Your task to perform on an android device: Open the calendar app, open the side menu, and click the "Day" option Image 0: 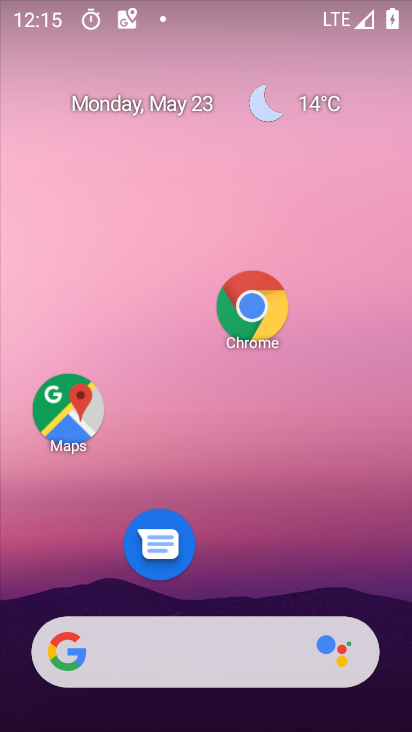
Step 0: drag from (248, 571) to (221, 207)
Your task to perform on an android device: Open the calendar app, open the side menu, and click the "Day" option Image 1: 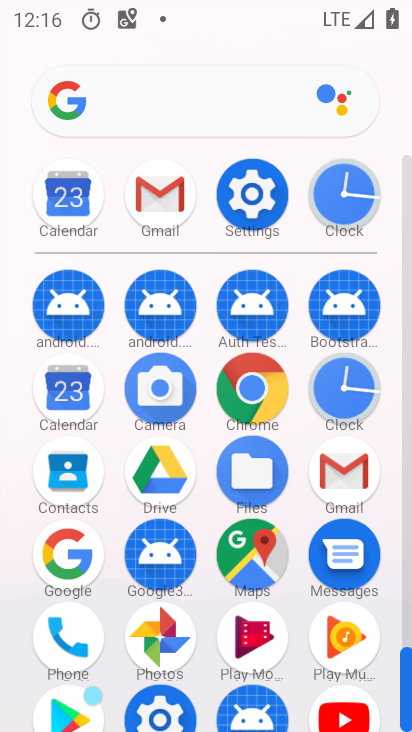
Step 1: click (91, 391)
Your task to perform on an android device: Open the calendar app, open the side menu, and click the "Day" option Image 2: 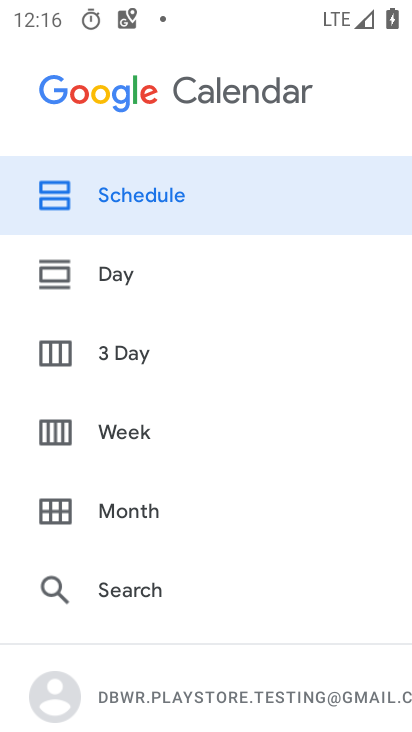
Step 2: click (103, 276)
Your task to perform on an android device: Open the calendar app, open the side menu, and click the "Day" option Image 3: 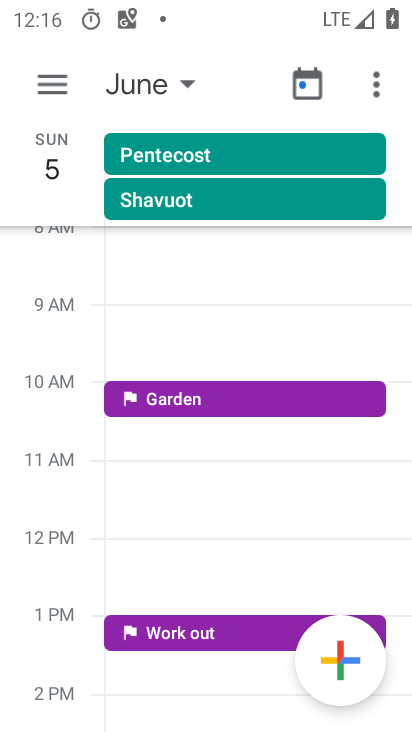
Step 3: task complete